Your task to perform on an android device: refresh tabs in the chrome app Image 0: 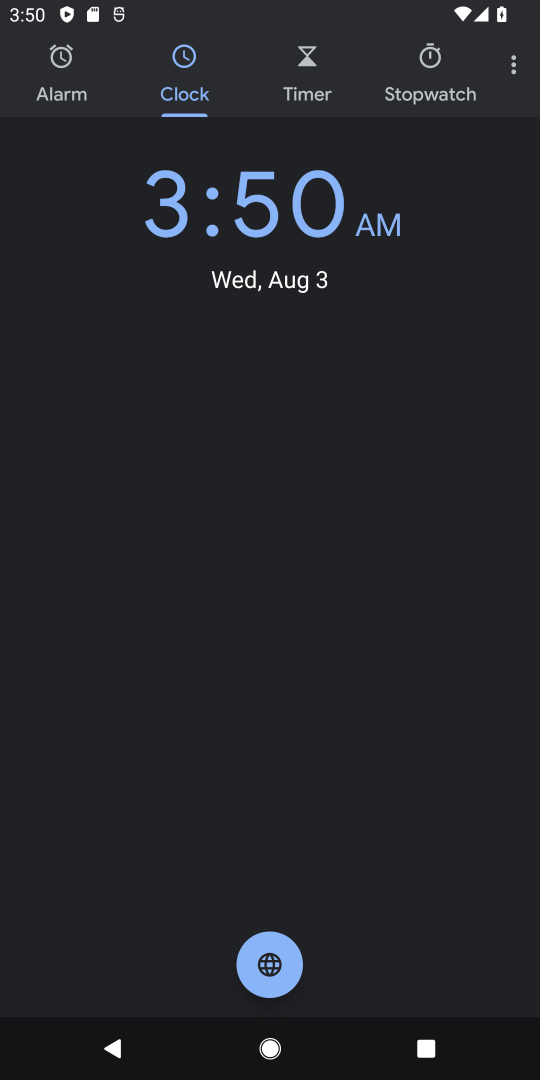
Step 0: press home button
Your task to perform on an android device: refresh tabs in the chrome app Image 1: 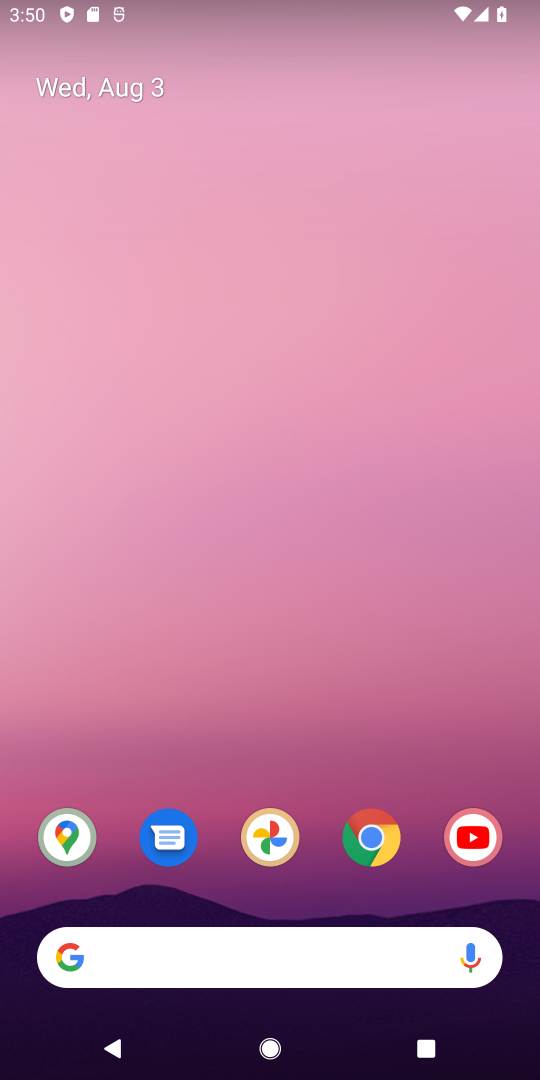
Step 1: click (373, 842)
Your task to perform on an android device: refresh tabs in the chrome app Image 2: 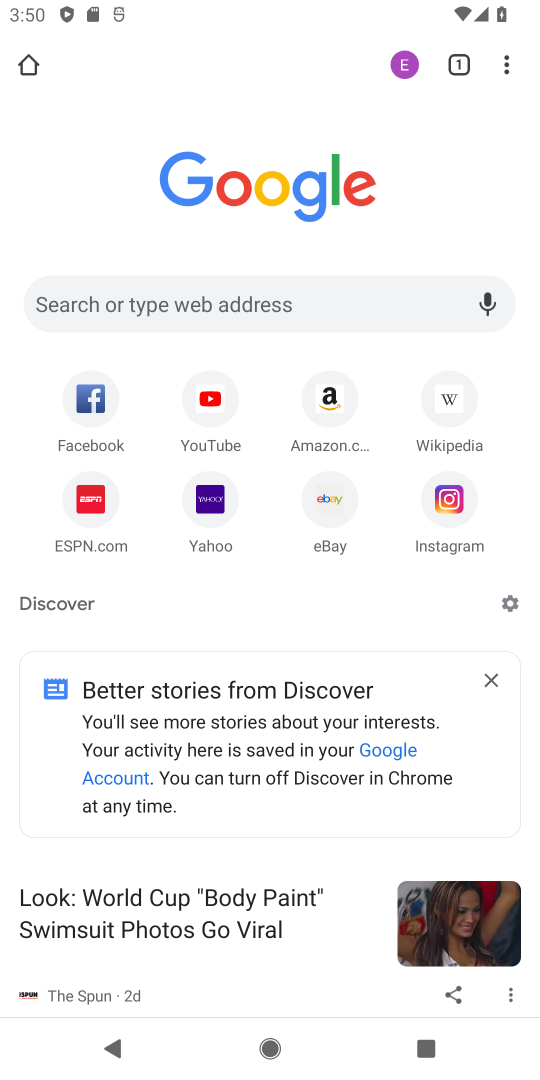
Step 2: click (506, 67)
Your task to perform on an android device: refresh tabs in the chrome app Image 3: 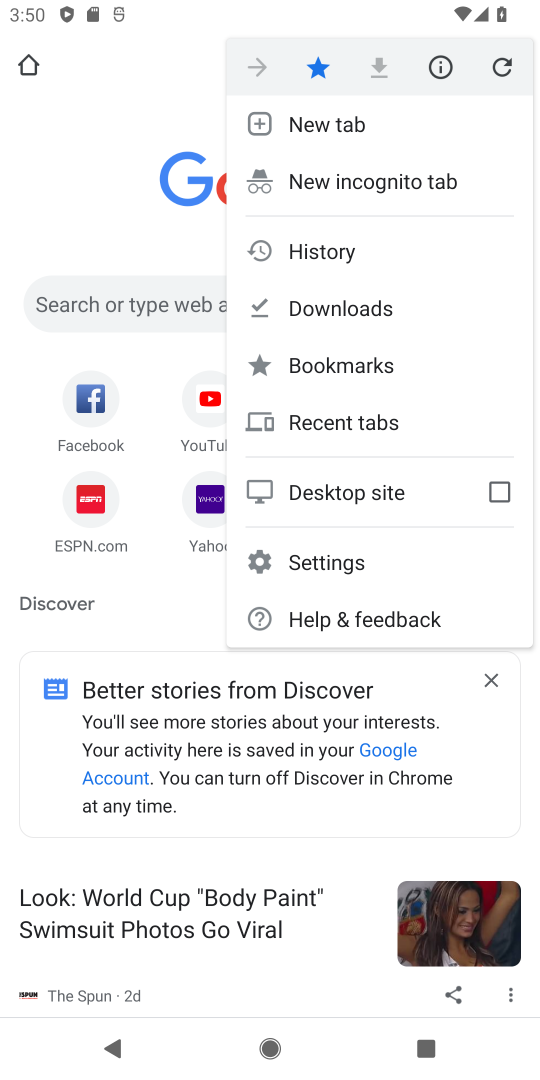
Step 3: click (501, 62)
Your task to perform on an android device: refresh tabs in the chrome app Image 4: 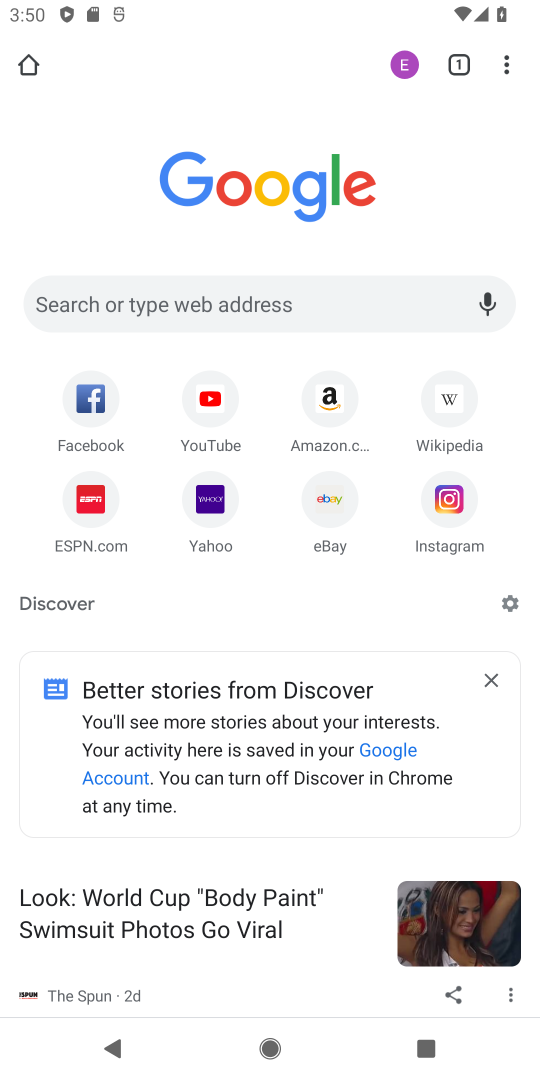
Step 4: task complete